Your task to perform on an android device: check the backup settings in the google photos Image 0: 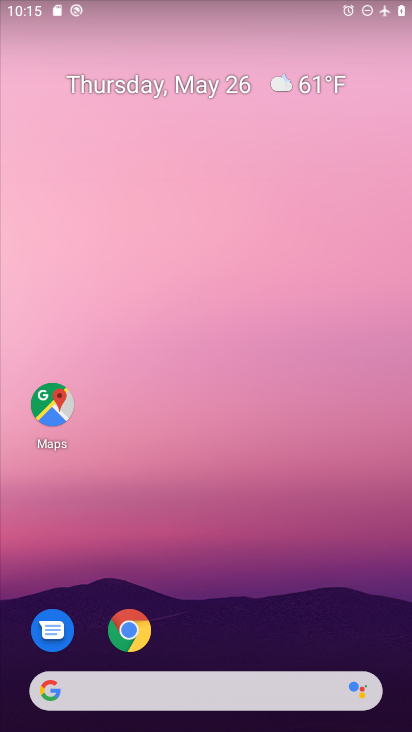
Step 0: drag from (215, 655) to (158, 184)
Your task to perform on an android device: check the backup settings in the google photos Image 1: 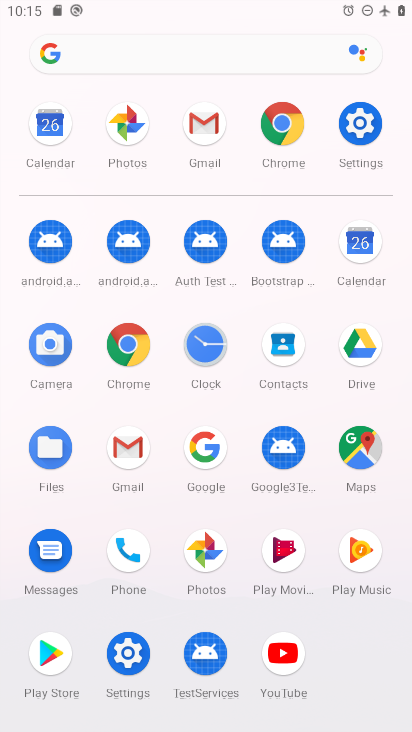
Step 1: click (208, 546)
Your task to perform on an android device: check the backup settings in the google photos Image 2: 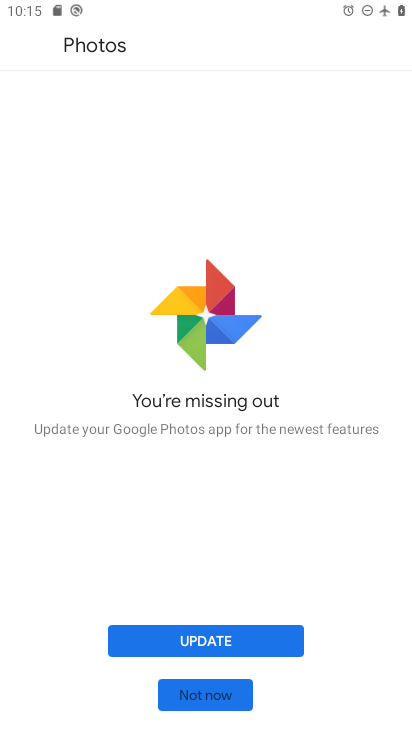
Step 2: click (205, 693)
Your task to perform on an android device: check the backup settings in the google photos Image 3: 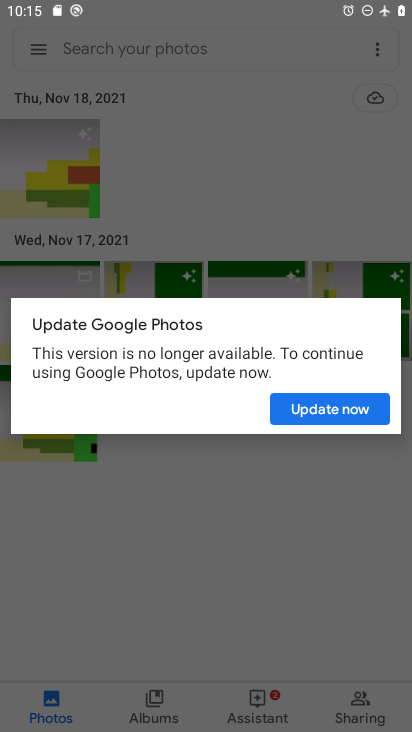
Step 3: click (297, 396)
Your task to perform on an android device: check the backup settings in the google photos Image 4: 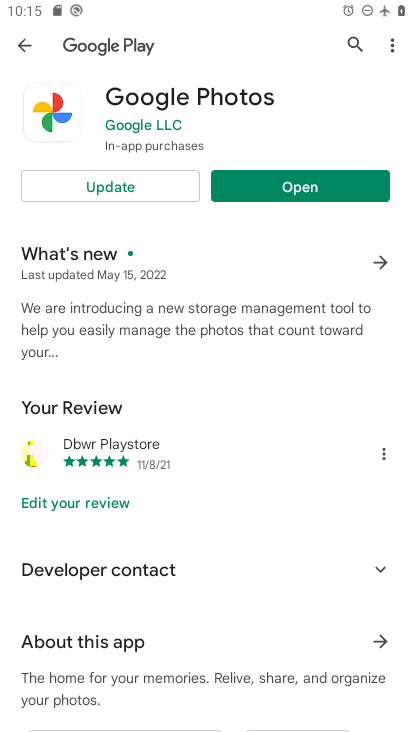
Step 4: click (258, 192)
Your task to perform on an android device: check the backup settings in the google photos Image 5: 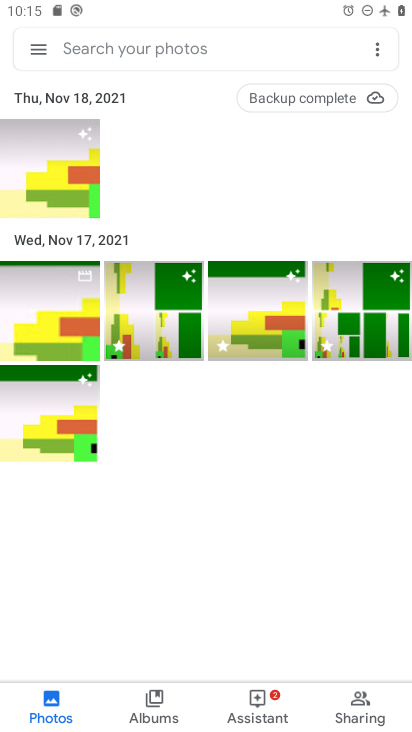
Step 5: click (24, 45)
Your task to perform on an android device: check the backup settings in the google photos Image 6: 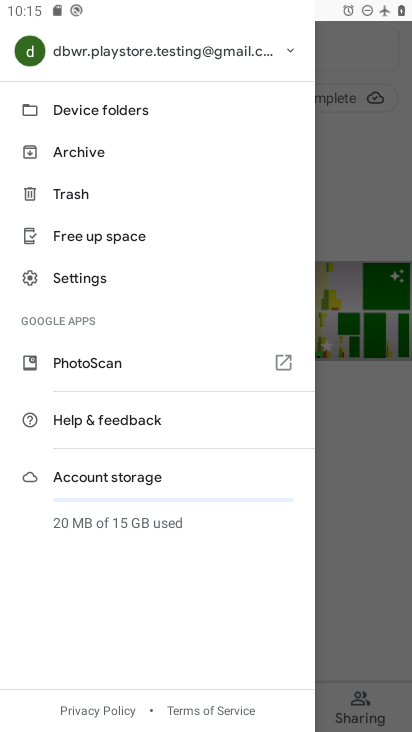
Step 6: click (110, 55)
Your task to perform on an android device: check the backup settings in the google photos Image 7: 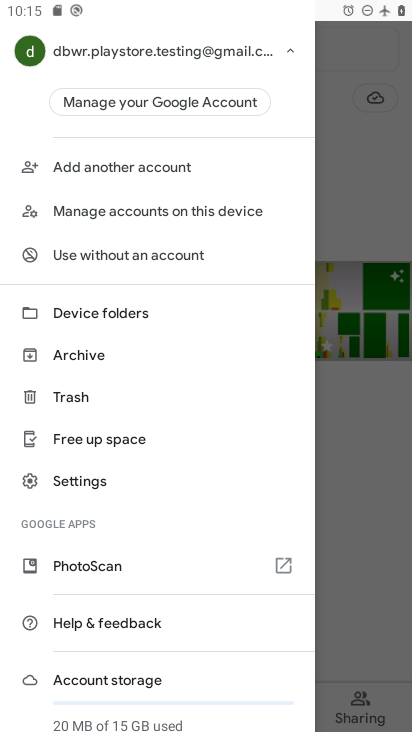
Step 7: click (81, 473)
Your task to perform on an android device: check the backup settings in the google photos Image 8: 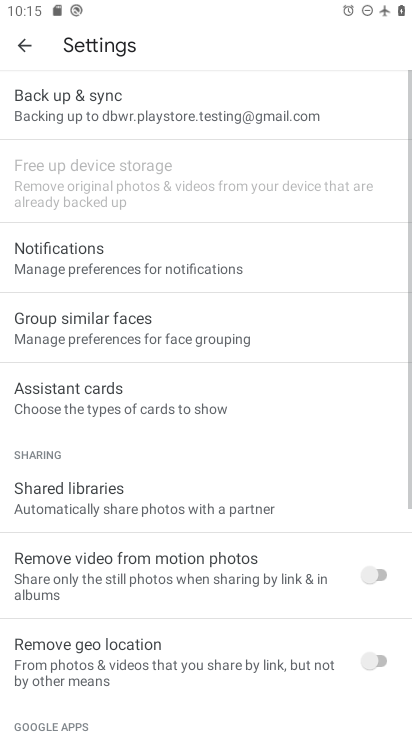
Step 8: click (126, 116)
Your task to perform on an android device: check the backup settings in the google photos Image 9: 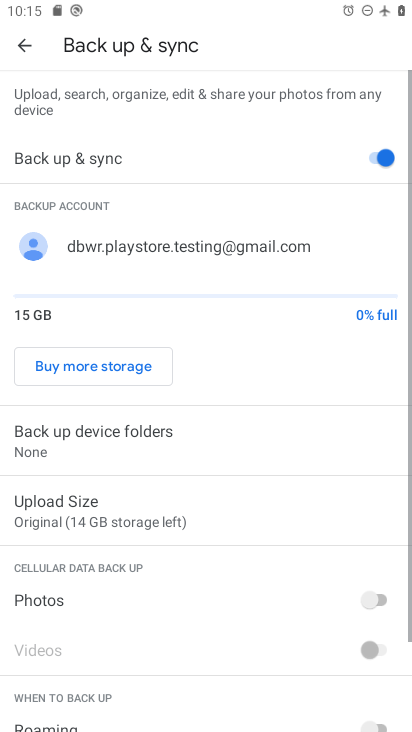
Step 9: task complete